Your task to perform on an android device: Open eBay Image 0: 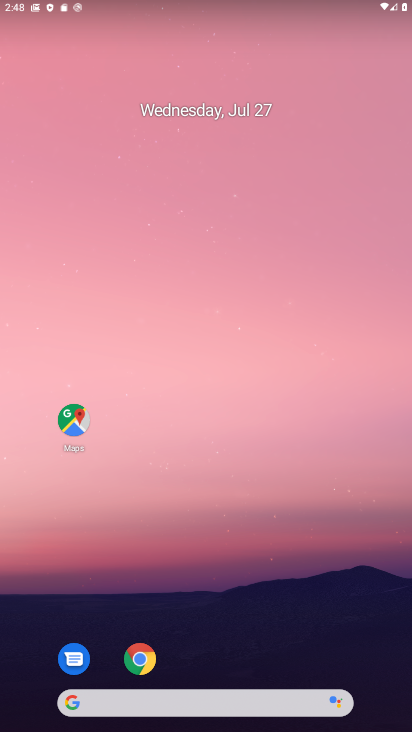
Step 0: drag from (207, 690) to (193, 41)
Your task to perform on an android device: Open eBay Image 1: 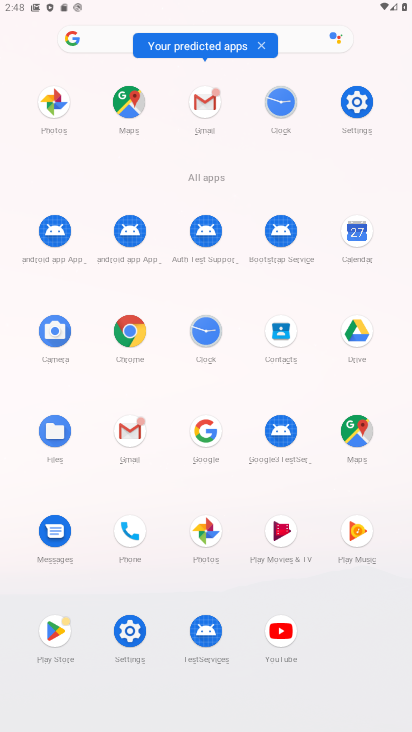
Step 1: click (211, 426)
Your task to perform on an android device: Open eBay Image 2: 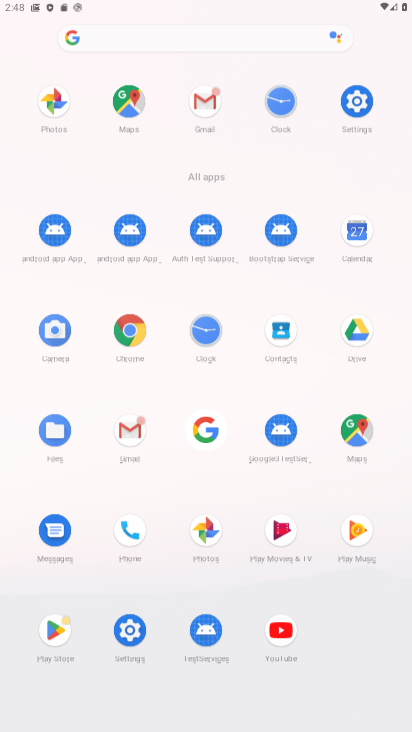
Step 2: click (206, 431)
Your task to perform on an android device: Open eBay Image 3: 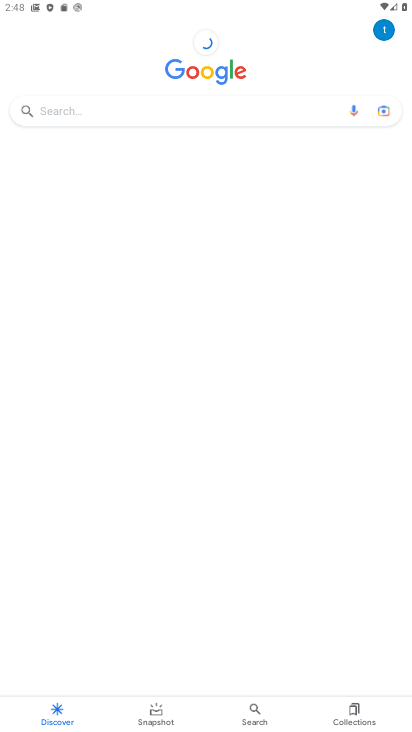
Step 3: click (113, 108)
Your task to perform on an android device: Open eBay Image 4: 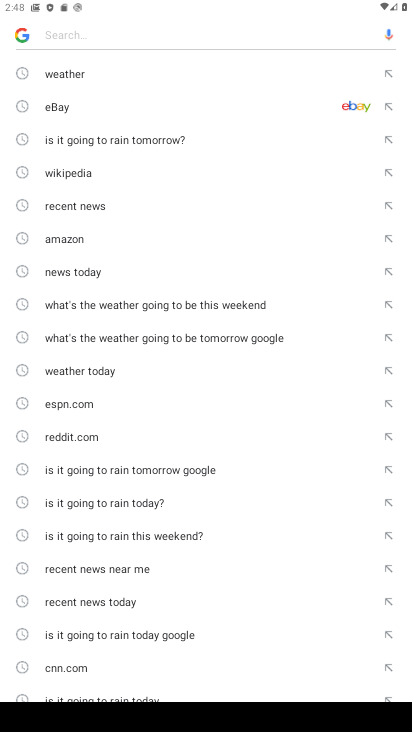
Step 4: click (70, 110)
Your task to perform on an android device: Open eBay Image 5: 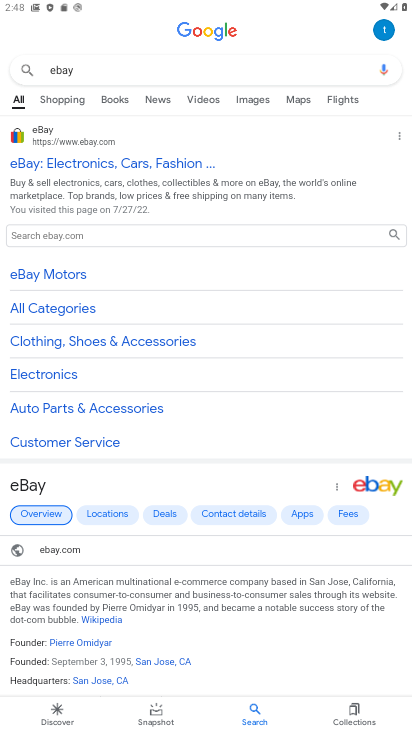
Step 5: click (87, 162)
Your task to perform on an android device: Open eBay Image 6: 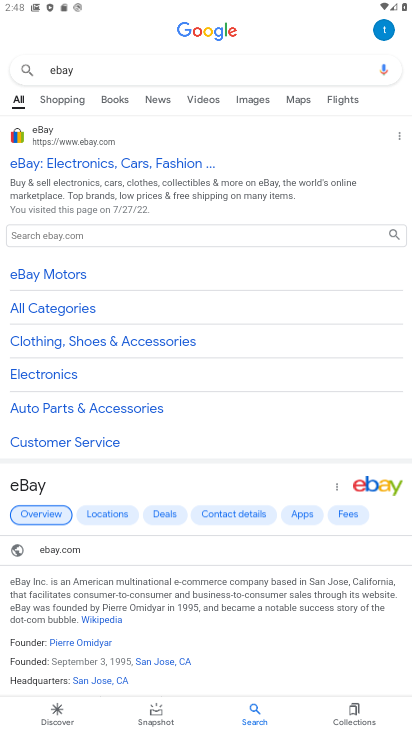
Step 6: task complete